Your task to perform on an android device: Go to Android settings Image 0: 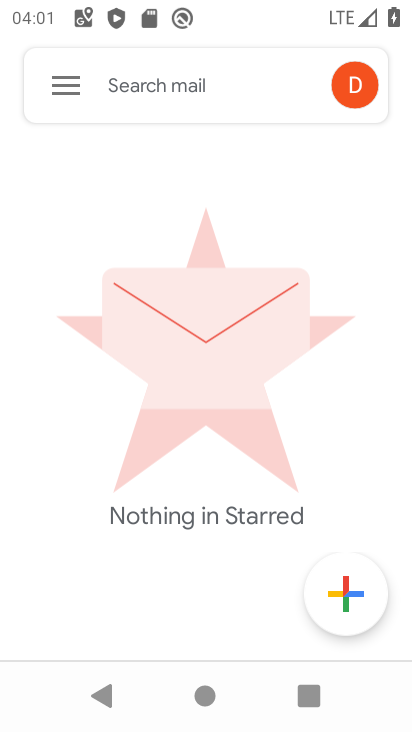
Step 0: press home button
Your task to perform on an android device: Go to Android settings Image 1: 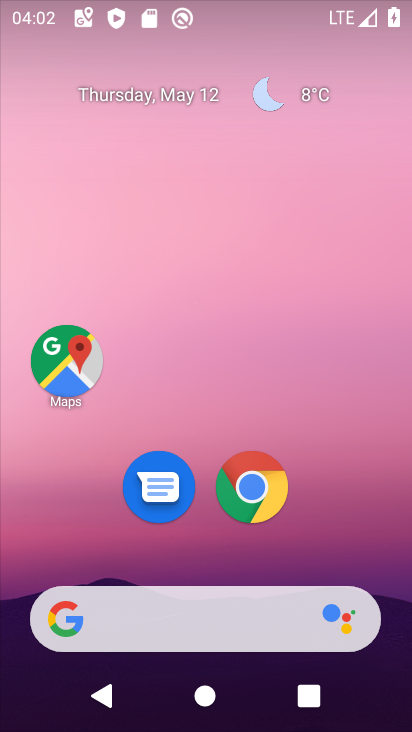
Step 1: drag from (312, 545) to (284, 127)
Your task to perform on an android device: Go to Android settings Image 2: 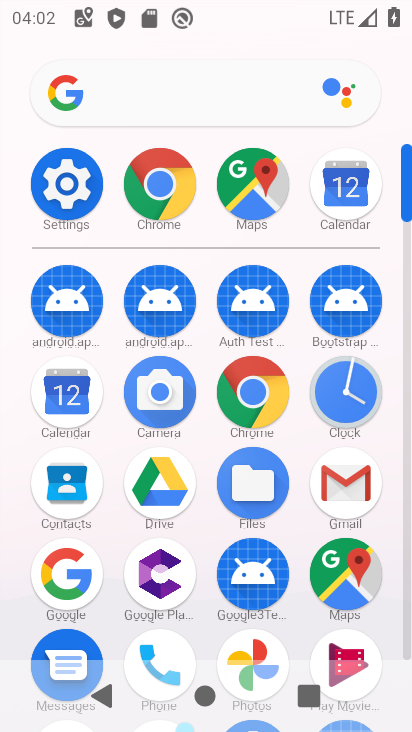
Step 2: click (81, 188)
Your task to perform on an android device: Go to Android settings Image 3: 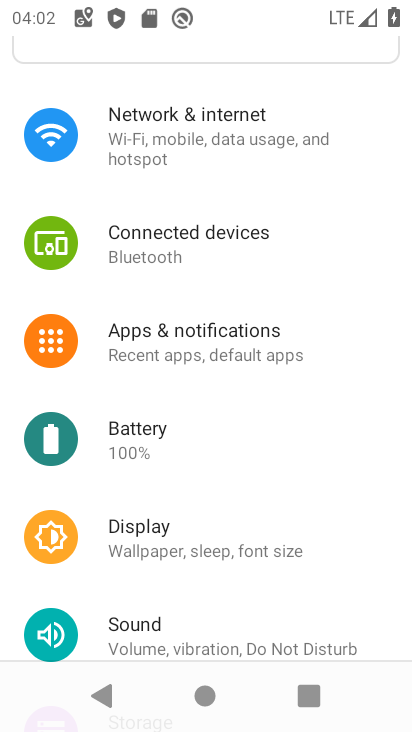
Step 3: task complete